Your task to perform on an android device: toggle sleep mode Image 0: 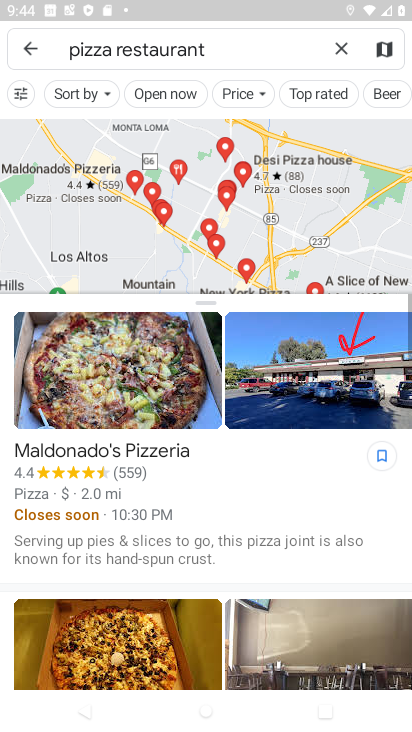
Step 0: press home button
Your task to perform on an android device: toggle sleep mode Image 1: 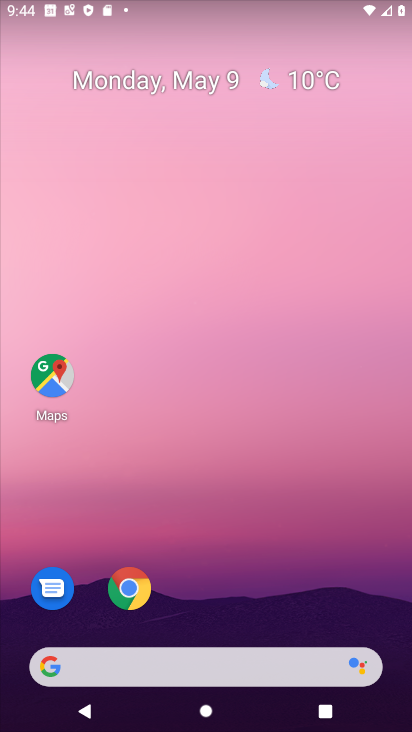
Step 1: drag from (174, 662) to (262, 169)
Your task to perform on an android device: toggle sleep mode Image 2: 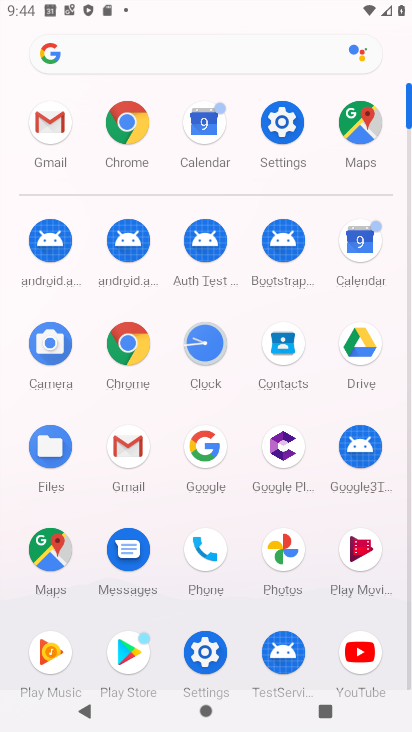
Step 2: click (288, 122)
Your task to perform on an android device: toggle sleep mode Image 3: 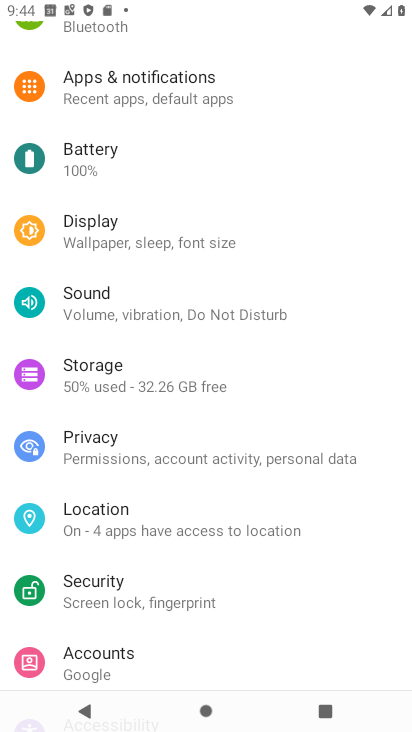
Step 3: click (135, 239)
Your task to perform on an android device: toggle sleep mode Image 4: 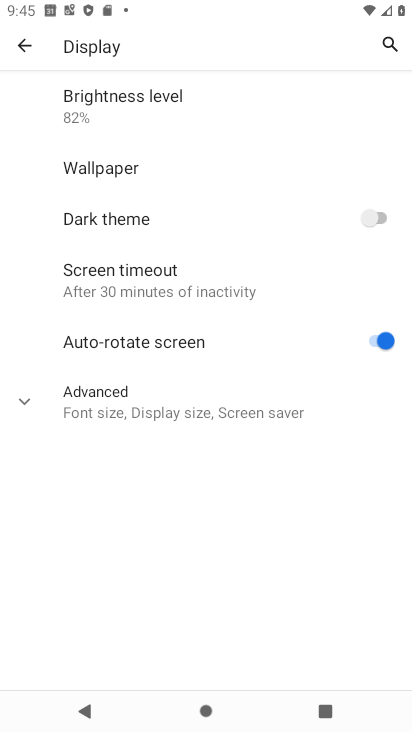
Step 4: task complete